Your task to perform on an android device: Open calendar and show me the second week of next month Image 0: 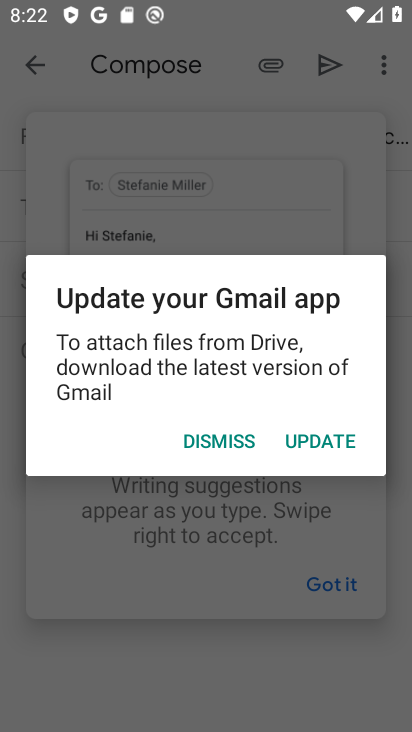
Step 0: click (226, 440)
Your task to perform on an android device: Open calendar and show me the second week of next month Image 1: 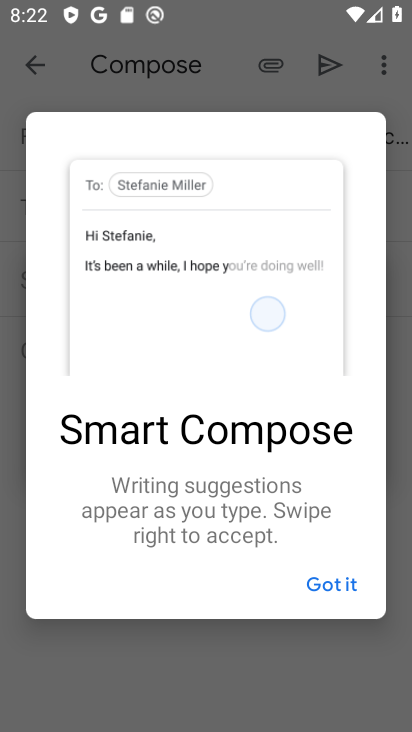
Step 1: click (336, 577)
Your task to perform on an android device: Open calendar and show me the second week of next month Image 2: 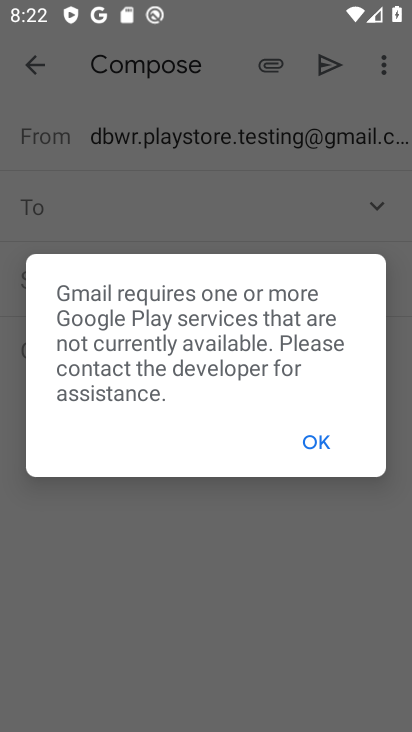
Step 2: click (311, 433)
Your task to perform on an android device: Open calendar and show me the second week of next month Image 3: 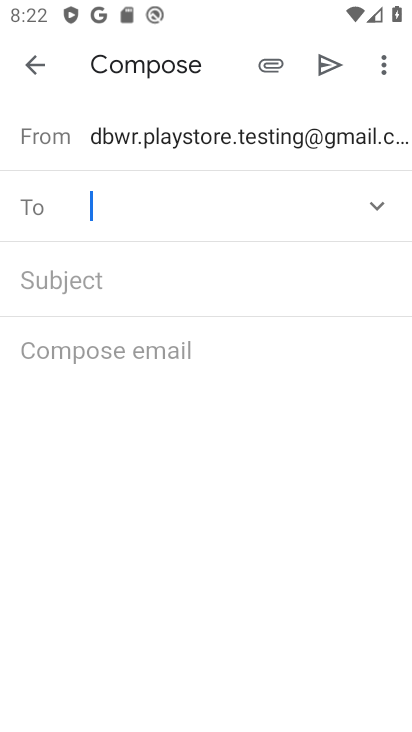
Step 3: click (36, 63)
Your task to perform on an android device: Open calendar and show me the second week of next month Image 4: 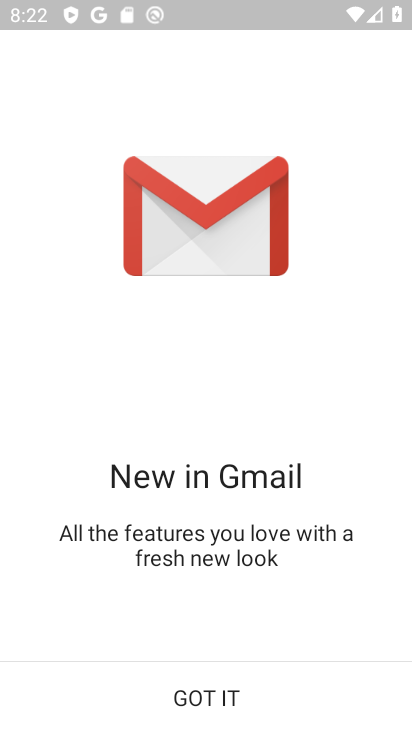
Step 4: press back button
Your task to perform on an android device: Open calendar and show me the second week of next month Image 5: 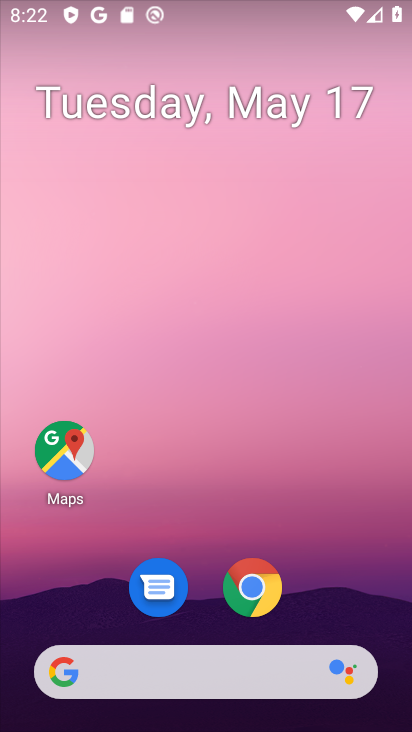
Step 5: drag from (356, 633) to (117, 79)
Your task to perform on an android device: Open calendar and show me the second week of next month Image 6: 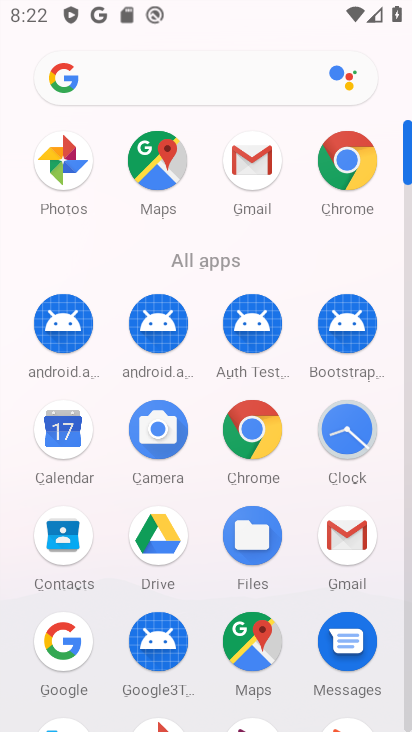
Step 6: click (57, 408)
Your task to perform on an android device: Open calendar and show me the second week of next month Image 7: 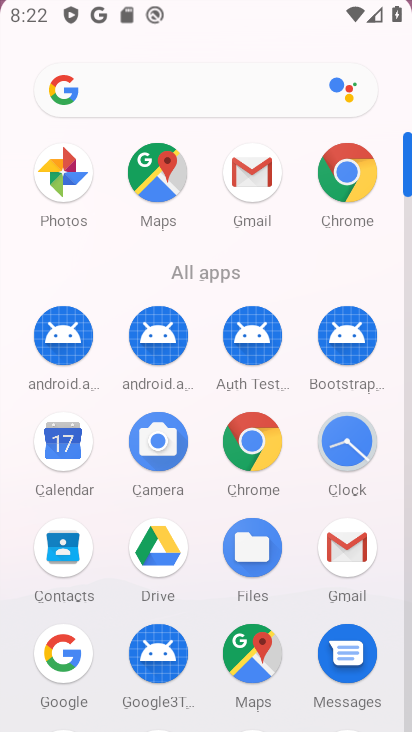
Step 7: click (66, 429)
Your task to perform on an android device: Open calendar and show me the second week of next month Image 8: 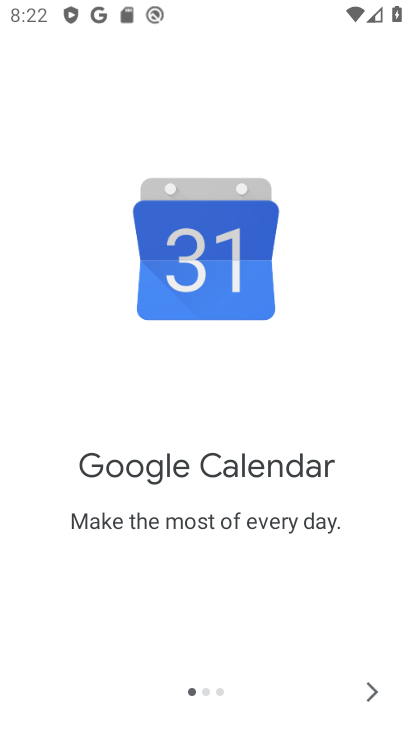
Step 8: click (370, 676)
Your task to perform on an android device: Open calendar and show me the second week of next month Image 9: 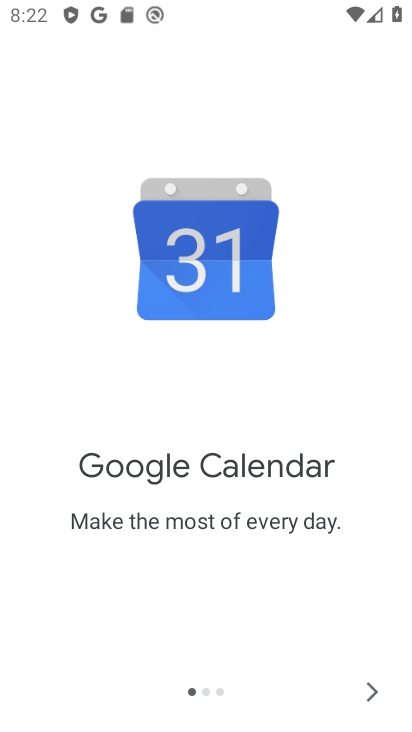
Step 9: click (369, 691)
Your task to perform on an android device: Open calendar and show me the second week of next month Image 10: 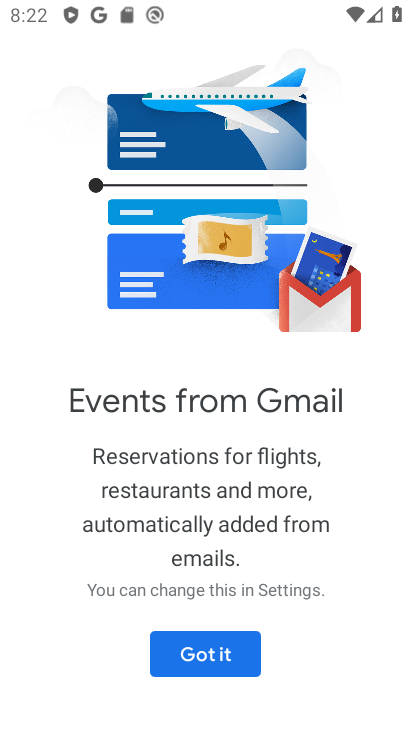
Step 10: click (370, 693)
Your task to perform on an android device: Open calendar and show me the second week of next month Image 11: 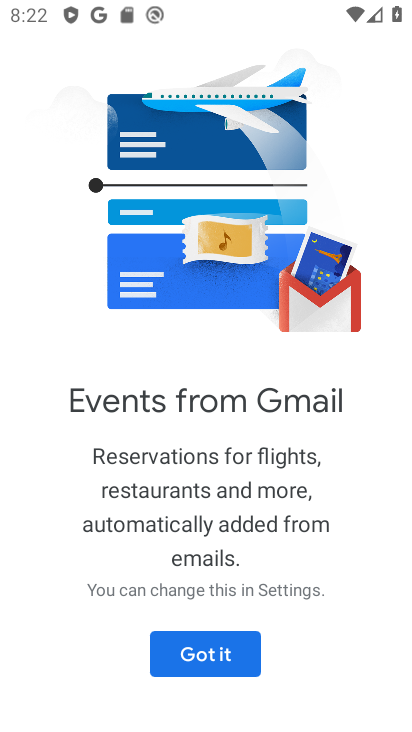
Step 11: click (370, 693)
Your task to perform on an android device: Open calendar and show me the second week of next month Image 12: 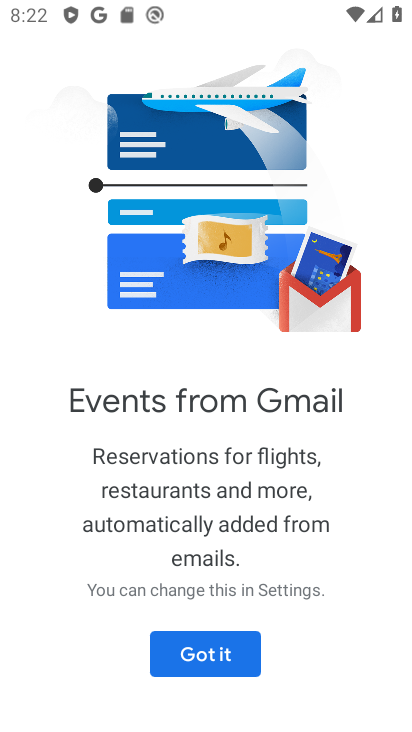
Step 12: click (370, 693)
Your task to perform on an android device: Open calendar and show me the second week of next month Image 13: 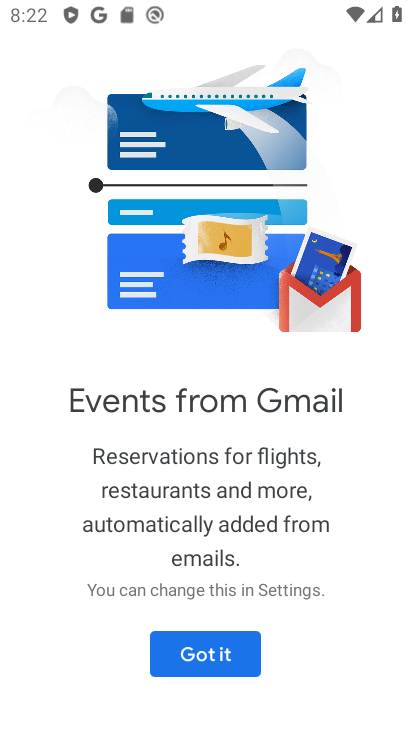
Step 13: click (370, 693)
Your task to perform on an android device: Open calendar and show me the second week of next month Image 14: 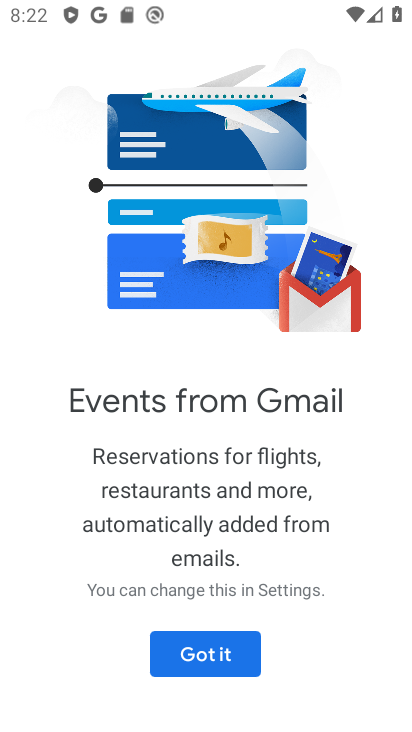
Step 14: click (243, 658)
Your task to perform on an android device: Open calendar and show me the second week of next month Image 15: 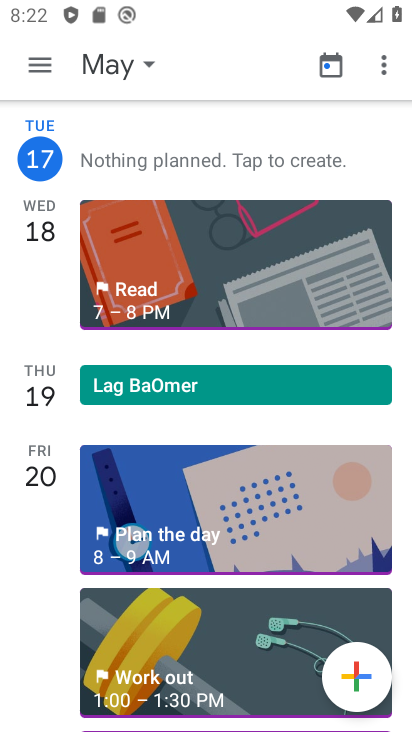
Step 15: click (145, 65)
Your task to perform on an android device: Open calendar and show me the second week of next month Image 16: 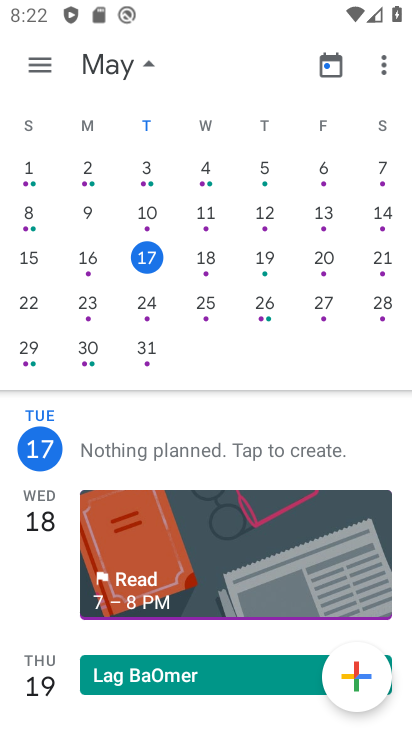
Step 16: drag from (253, 253) to (6, 221)
Your task to perform on an android device: Open calendar and show me the second week of next month Image 17: 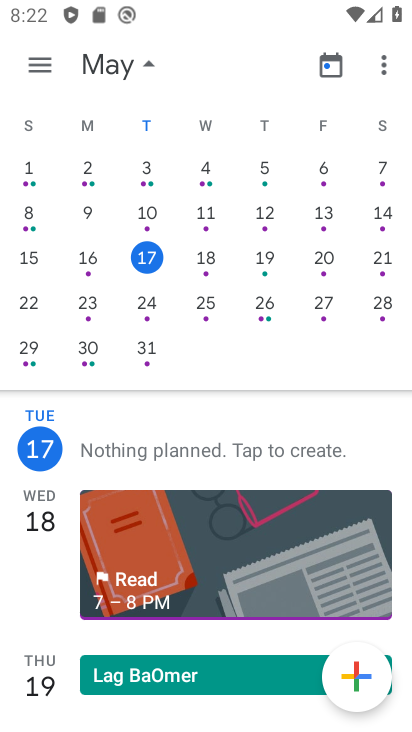
Step 17: drag from (262, 237) to (7, 303)
Your task to perform on an android device: Open calendar and show me the second week of next month Image 18: 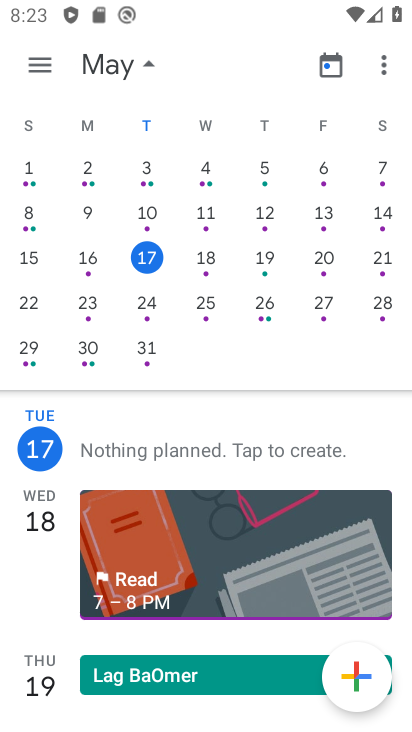
Step 18: drag from (273, 220) to (24, 323)
Your task to perform on an android device: Open calendar and show me the second week of next month Image 19: 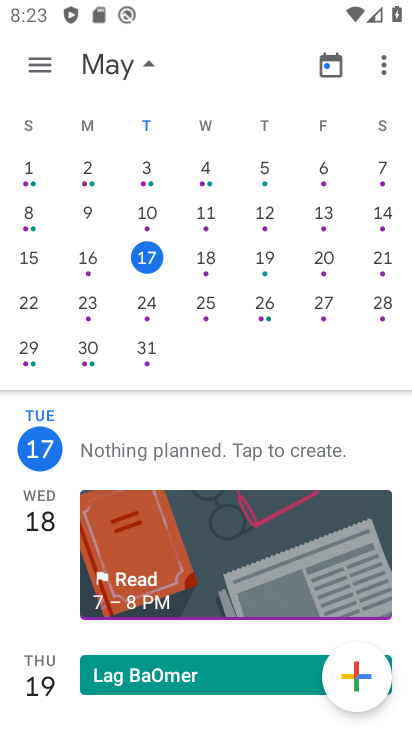
Step 19: drag from (286, 238) to (111, 365)
Your task to perform on an android device: Open calendar and show me the second week of next month Image 20: 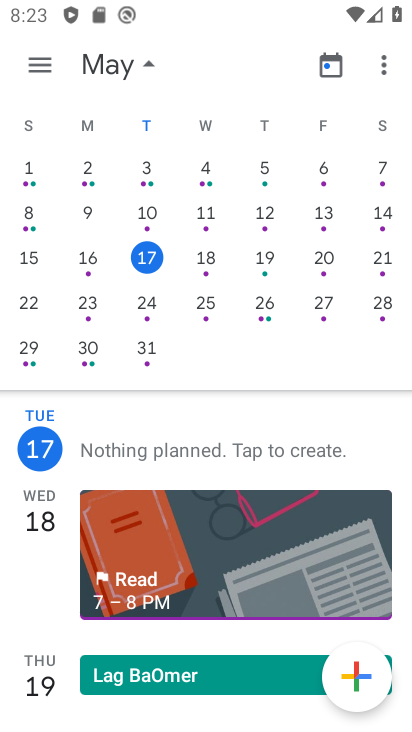
Step 20: drag from (236, 190) to (0, 261)
Your task to perform on an android device: Open calendar and show me the second week of next month Image 21: 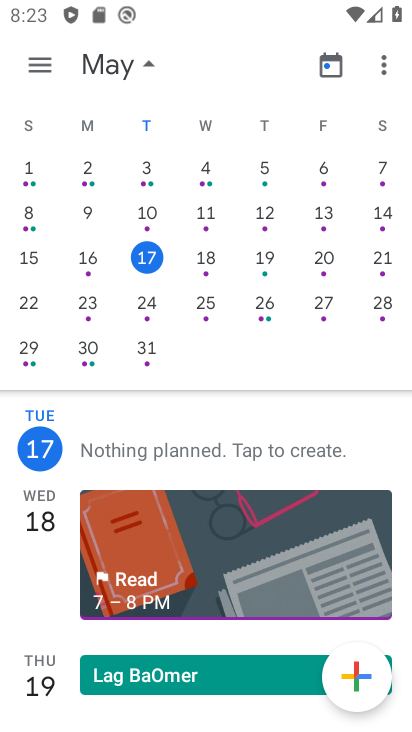
Step 21: drag from (255, 279) to (11, 267)
Your task to perform on an android device: Open calendar and show me the second week of next month Image 22: 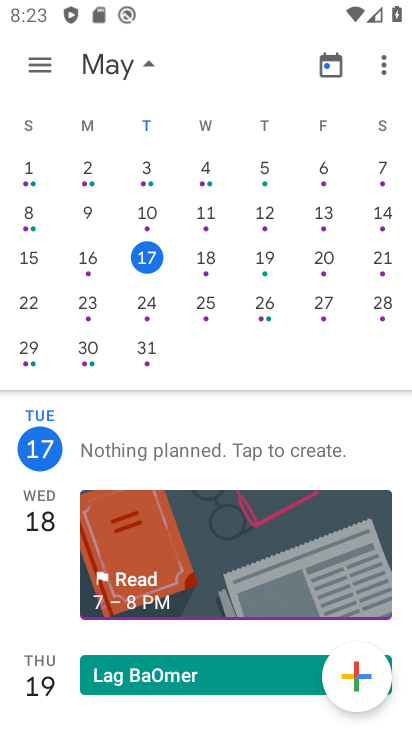
Step 22: drag from (218, 217) to (60, 283)
Your task to perform on an android device: Open calendar and show me the second week of next month Image 23: 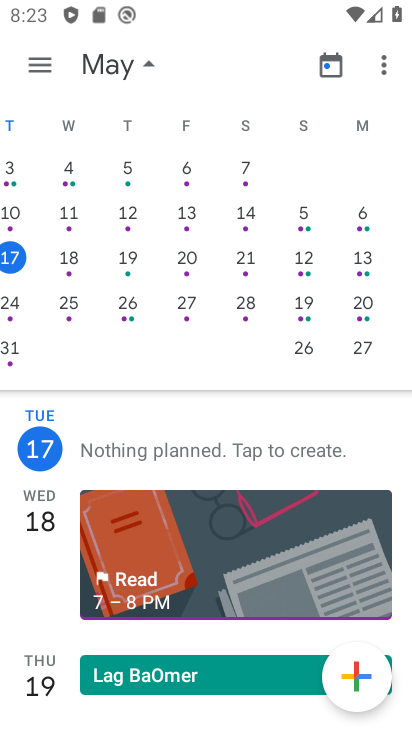
Step 23: drag from (309, 248) to (75, 320)
Your task to perform on an android device: Open calendar and show me the second week of next month Image 24: 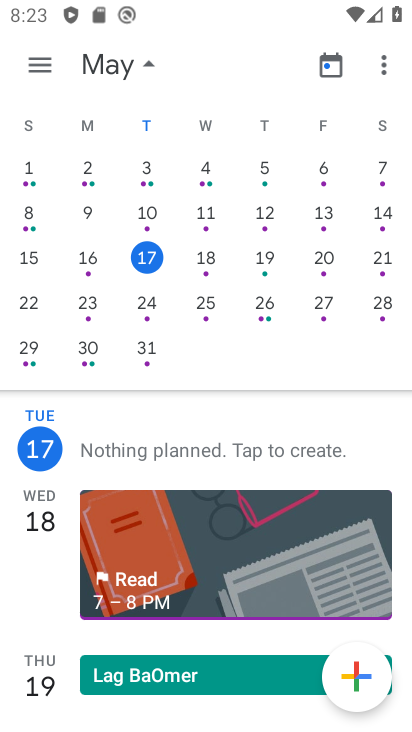
Step 24: drag from (151, 255) to (2, 324)
Your task to perform on an android device: Open calendar and show me the second week of next month Image 25: 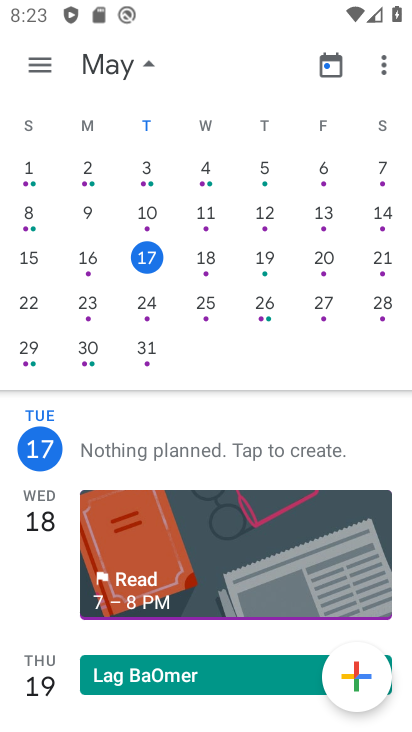
Step 25: click (21, 272)
Your task to perform on an android device: Open calendar and show me the second week of next month Image 26: 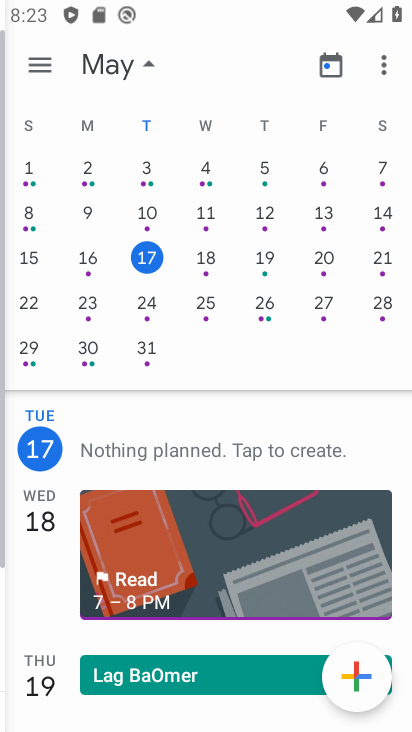
Step 26: drag from (338, 223) to (5, 307)
Your task to perform on an android device: Open calendar and show me the second week of next month Image 27: 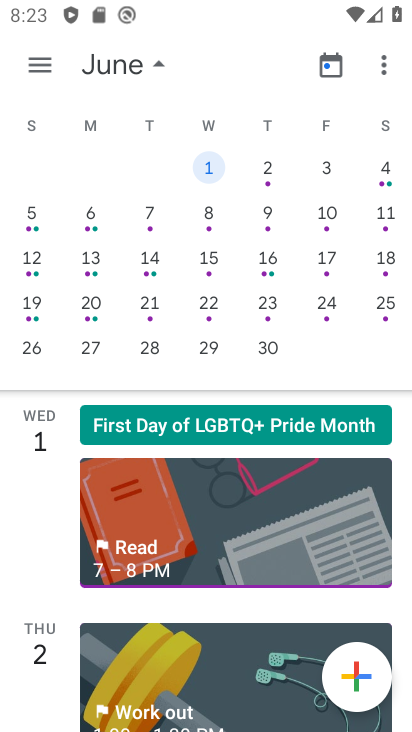
Step 27: drag from (86, 327) to (28, 382)
Your task to perform on an android device: Open calendar and show me the second week of next month Image 28: 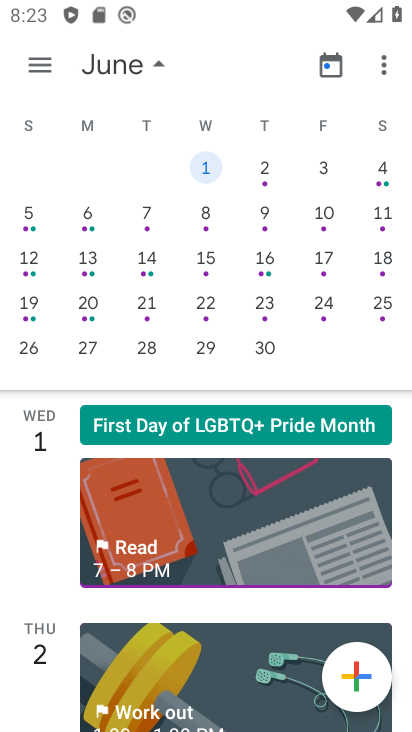
Step 28: drag from (251, 232) to (9, 253)
Your task to perform on an android device: Open calendar and show me the second week of next month Image 29: 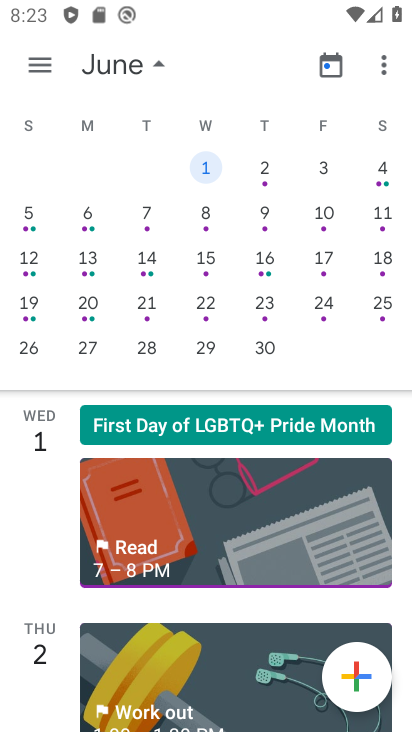
Step 29: click (201, 216)
Your task to perform on an android device: Open calendar and show me the second week of next month Image 30: 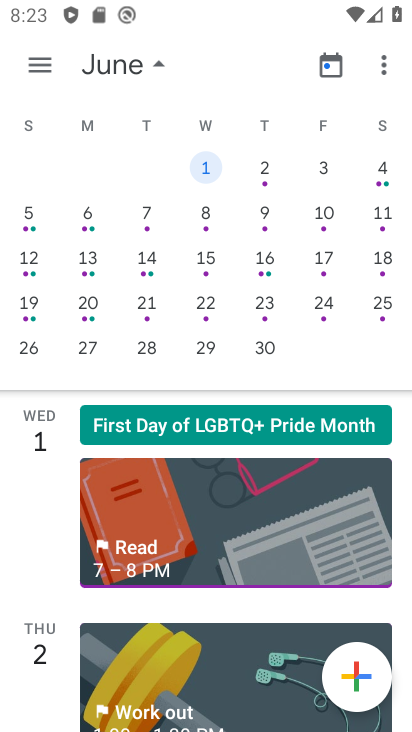
Step 30: click (202, 215)
Your task to perform on an android device: Open calendar and show me the second week of next month Image 31: 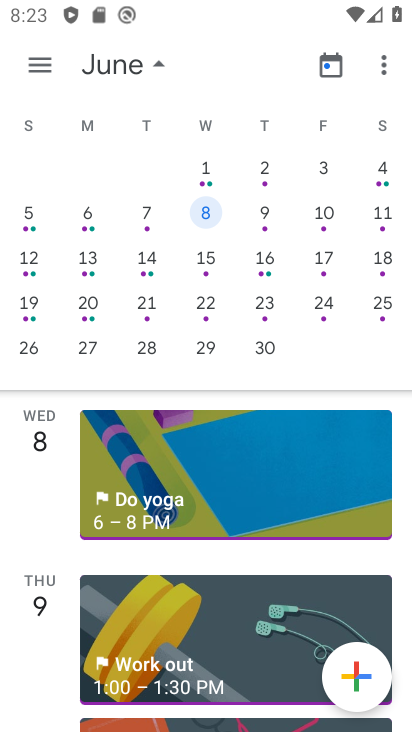
Step 31: click (202, 215)
Your task to perform on an android device: Open calendar and show me the second week of next month Image 32: 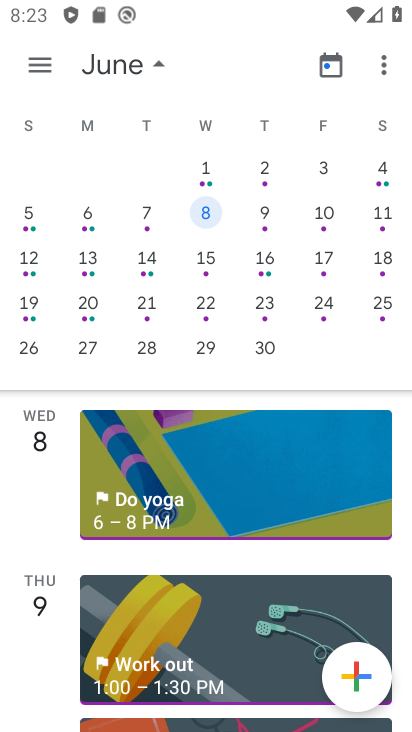
Step 32: task complete